Your task to perform on an android device: Open Google Chrome and click the shortcut for Amazon.com Image 0: 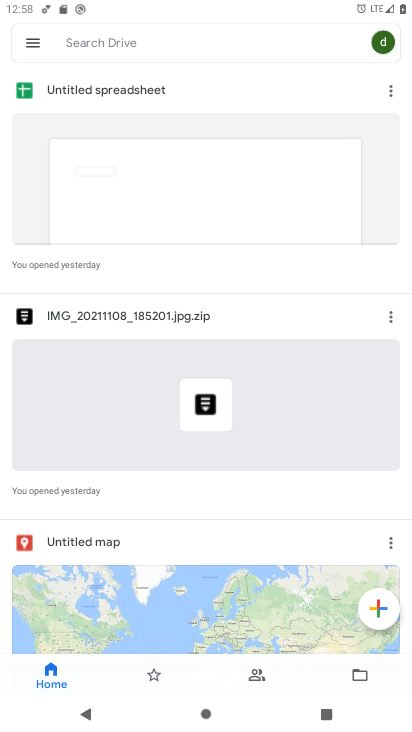
Step 0: press home button
Your task to perform on an android device: Open Google Chrome and click the shortcut for Amazon.com Image 1: 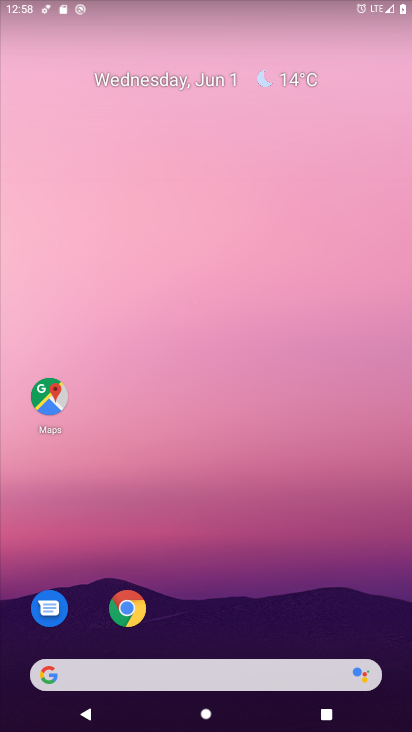
Step 1: click (143, 616)
Your task to perform on an android device: Open Google Chrome and click the shortcut for Amazon.com Image 2: 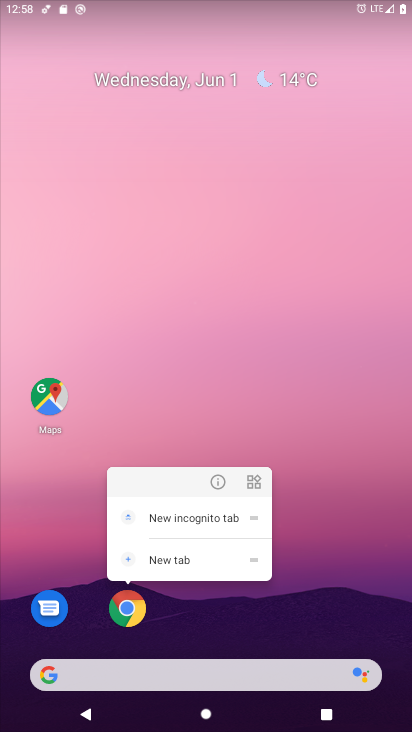
Step 2: click (127, 615)
Your task to perform on an android device: Open Google Chrome and click the shortcut for Amazon.com Image 3: 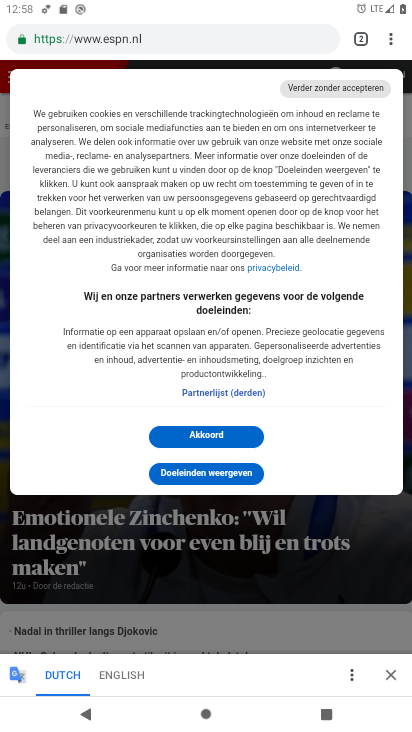
Step 3: click (391, 35)
Your task to perform on an android device: Open Google Chrome and click the shortcut for Amazon.com Image 4: 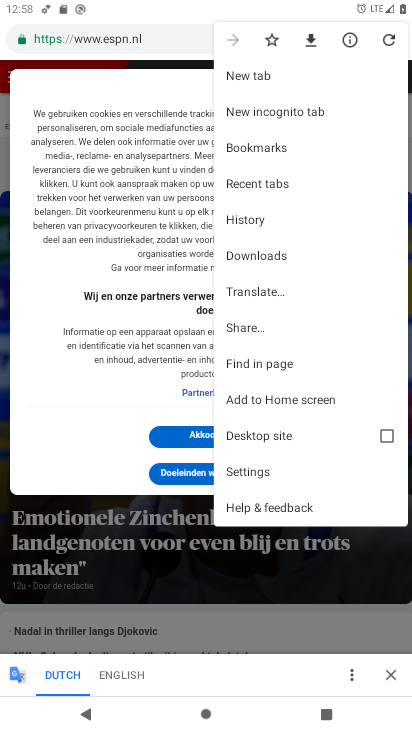
Step 4: click (247, 73)
Your task to perform on an android device: Open Google Chrome and click the shortcut for Amazon.com Image 5: 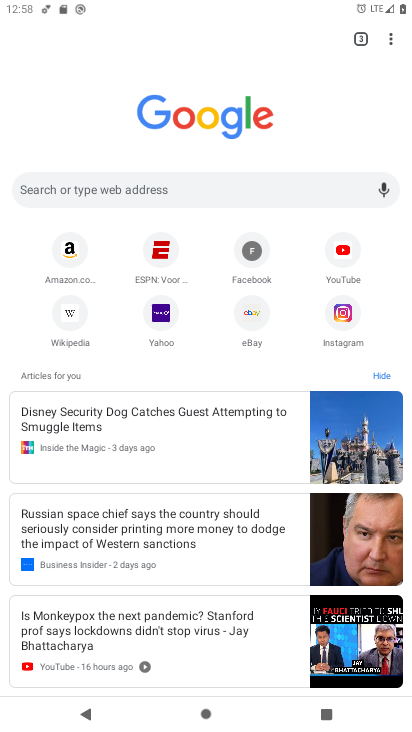
Step 5: click (64, 250)
Your task to perform on an android device: Open Google Chrome and click the shortcut for Amazon.com Image 6: 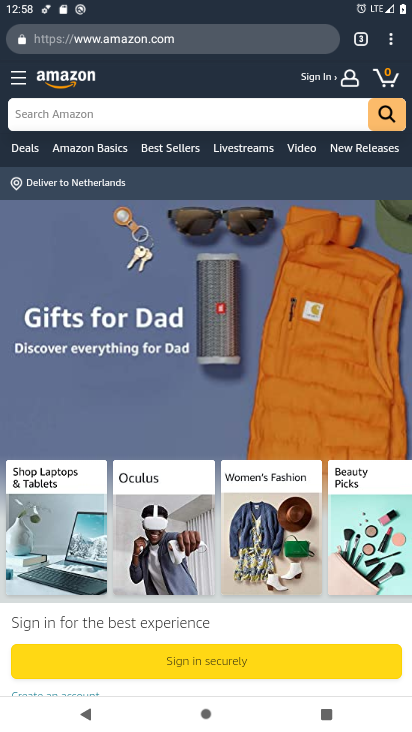
Step 6: task complete